Your task to perform on an android device: turn off improve location accuracy Image 0: 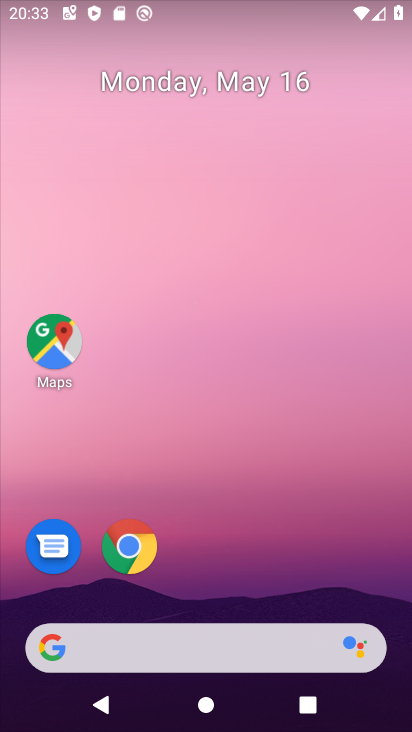
Step 0: drag from (286, 592) to (276, 132)
Your task to perform on an android device: turn off improve location accuracy Image 1: 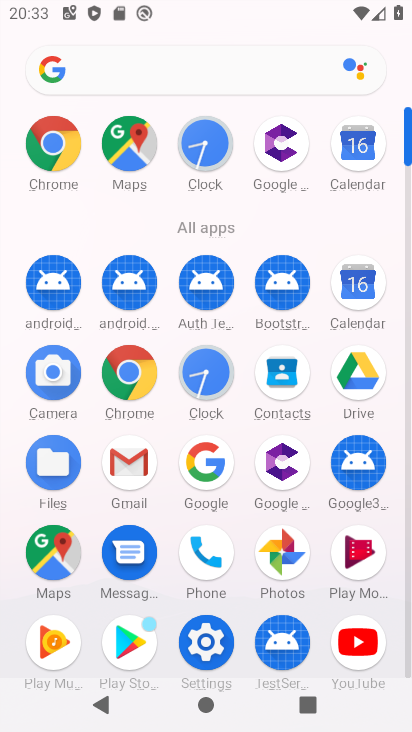
Step 1: click (210, 638)
Your task to perform on an android device: turn off improve location accuracy Image 2: 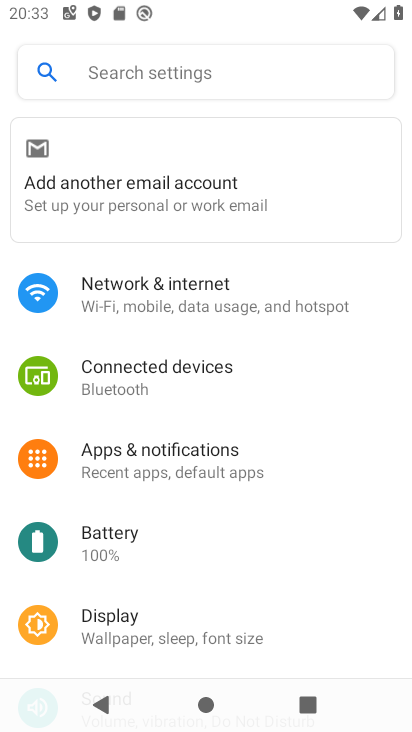
Step 2: drag from (273, 658) to (281, 318)
Your task to perform on an android device: turn off improve location accuracy Image 3: 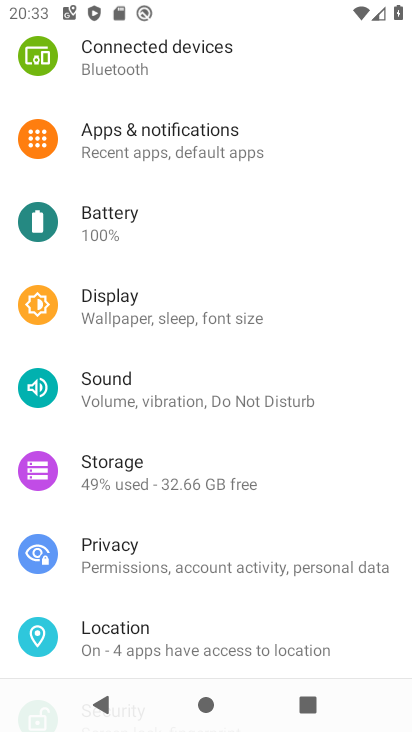
Step 3: click (303, 658)
Your task to perform on an android device: turn off improve location accuracy Image 4: 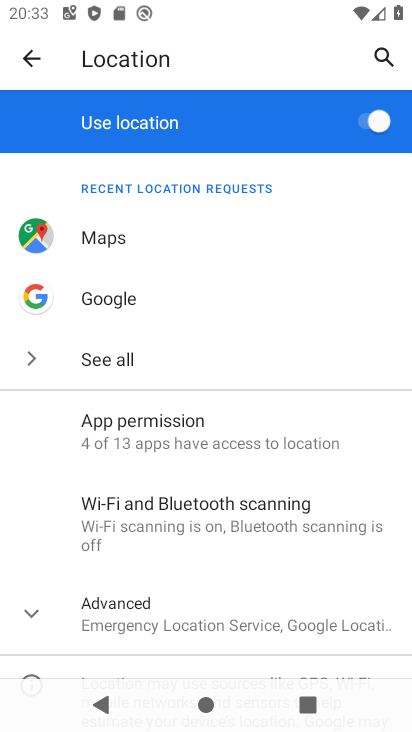
Step 4: drag from (322, 567) to (300, 455)
Your task to perform on an android device: turn off improve location accuracy Image 5: 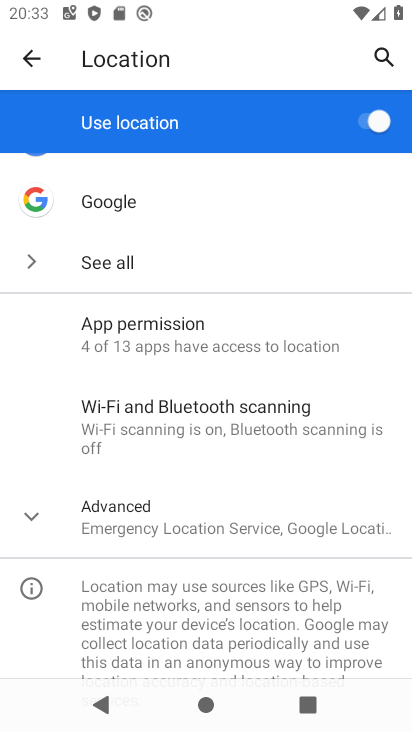
Step 5: click (308, 519)
Your task to perform on an android device: turn off improve location accuracy Image 6: 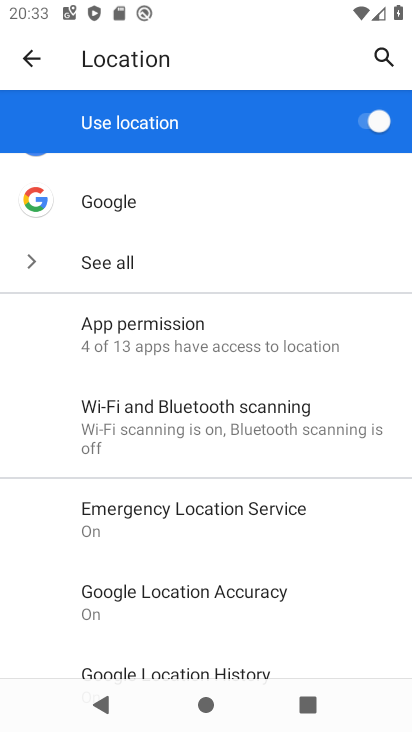
Step 6: click (280, 601)
Your task to perform on an android device: turn off improve location accuracy Image 7: 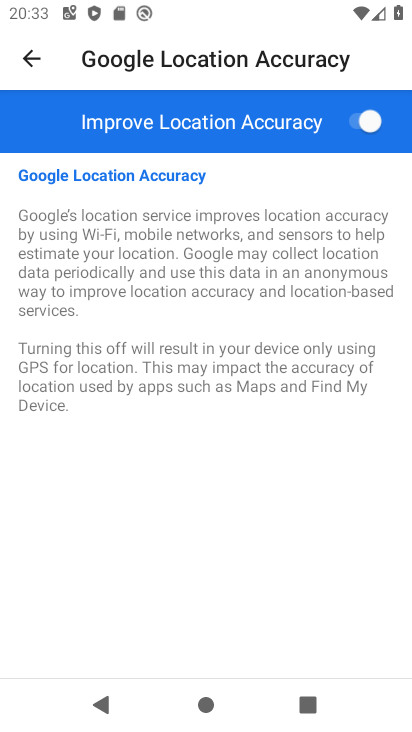
Step 7: click (362, 121)
Your task to perform on an android device: turn off improve location accuracy Image 8: 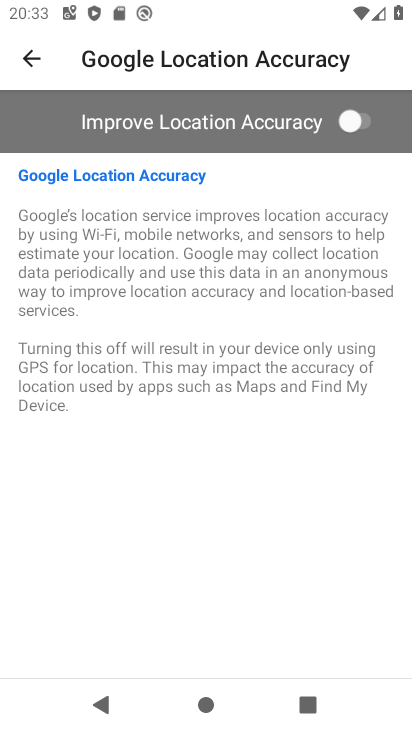
Step 8: task complete